Your task to perform on an android device: all mails in gmail Image 0: 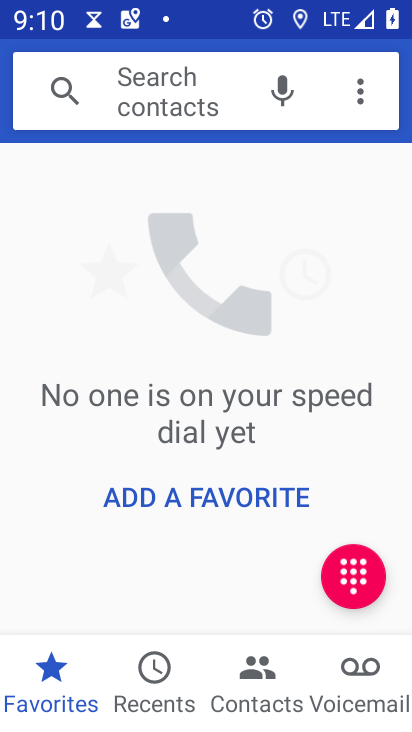
Step 0: press home button
Your task to perform on an android device: all mails in gmail Image 1: 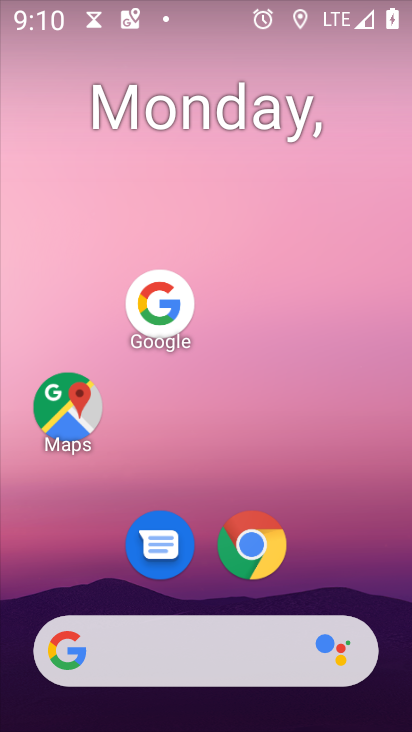
Step 1: drag from (180, 646) to (317, 103)
Your task to perform on an android device: all mails in gmail Image 2: 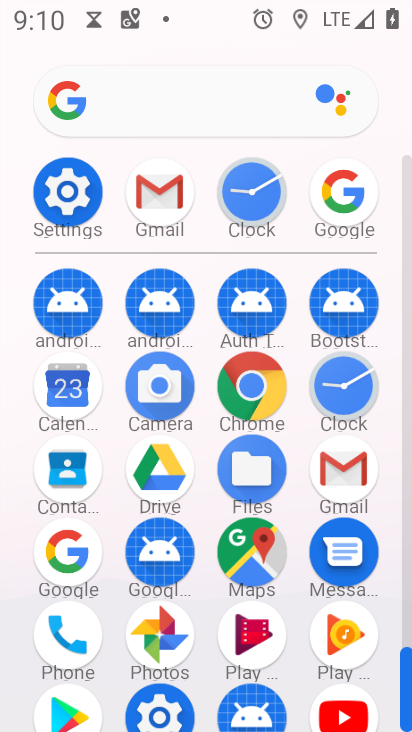
Step 2: click (143, 205)
Your task to perform on an android device: all mails in gmail Image 3: 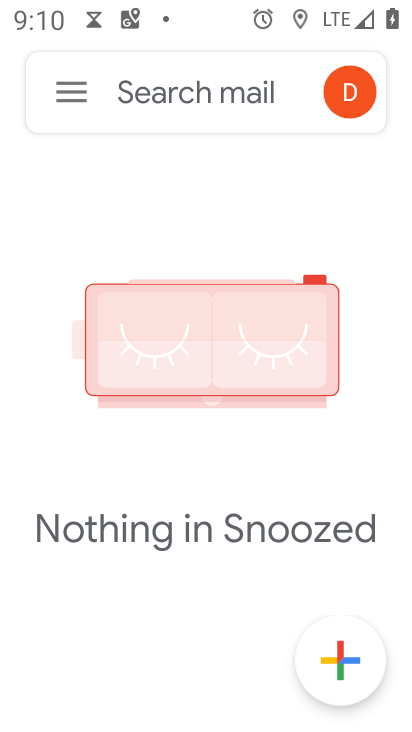
Step 3: click (69, 91)
Your task to perform on an android device: all mails in gmail Image 4: 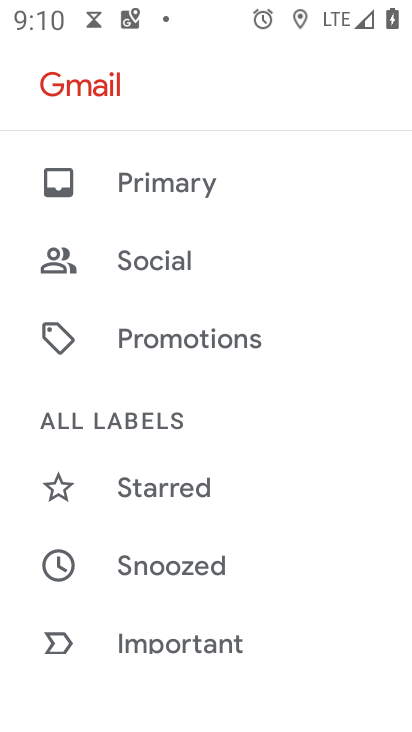
Step 4: drag from (251, 623) to (357, 120)
Your task to perform on an android device: all mails in gmail Image 5: 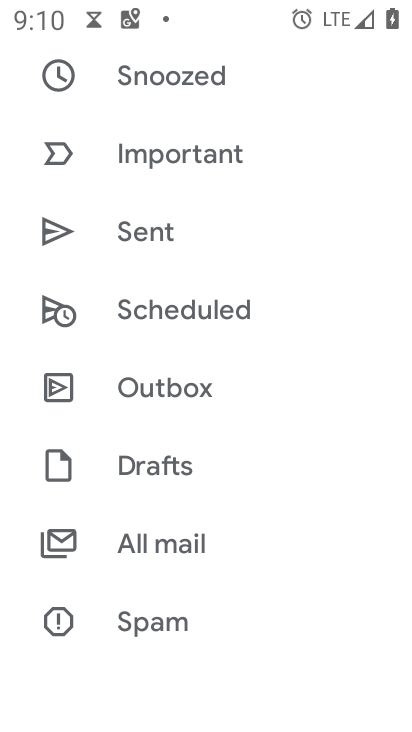
Step 5: click (203, 547)
Your task to perform on an android device: all mails in gmail Image 6: 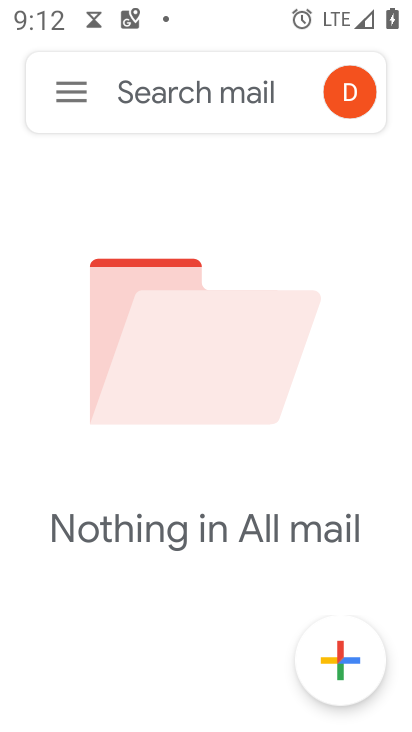
Step 6: task complete